Your task to perform on an android device: turn on data saver in the chrome app Image 0: 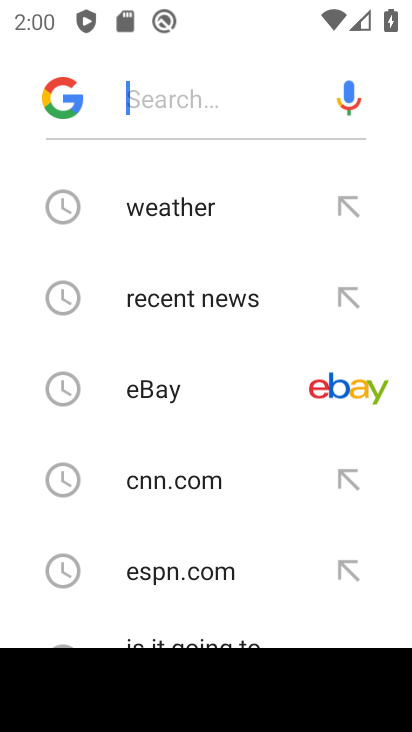
Step 0: press home button
Your task to perform on an android device: turn on data saver in the chrome app Image 1: 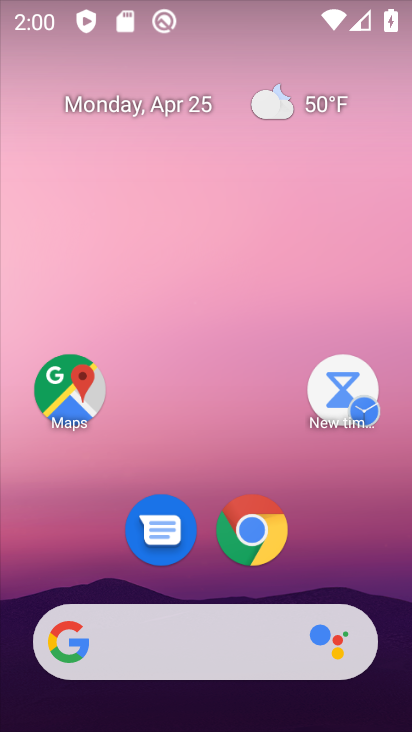
Step 1: drag from (229, 590) to (359, 20)
Your task to perform on an android device: turn on data saver in the chrome app Image 2: 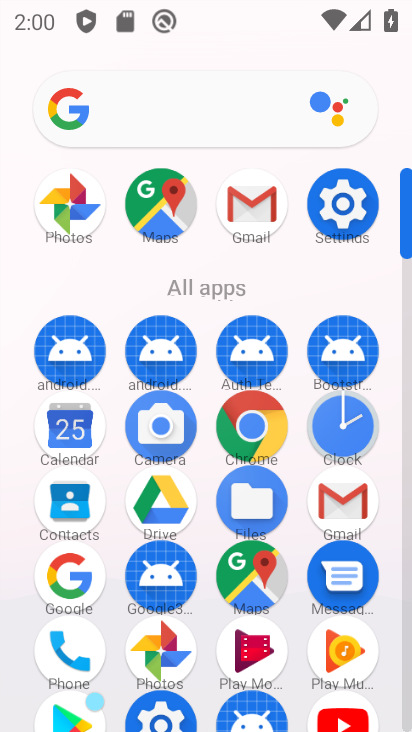
Step 2: click (250, 416)
Your task to perform on an android device: turn on data saver in the chrome app Image 3: 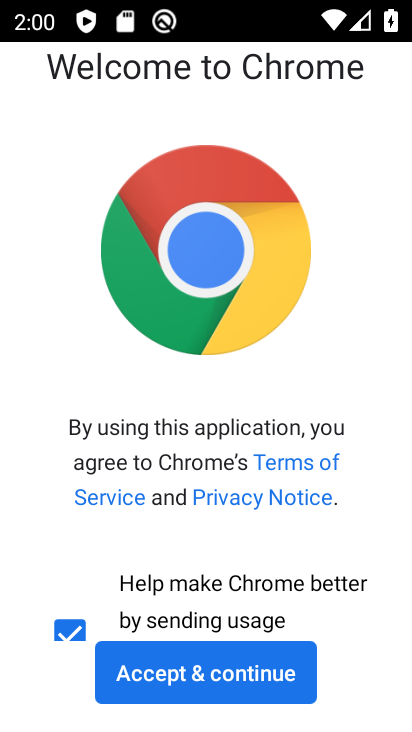
Step 3: click (255, 676)
Your task to perform on an android device: turn on data saver in the chrome app Image 4: 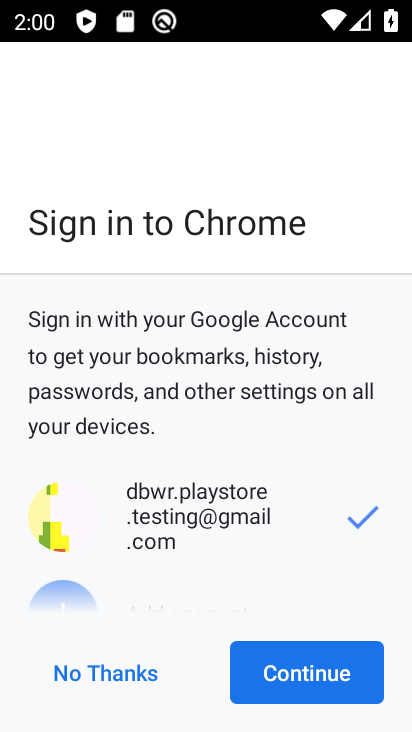
Step 4: click (280, 676)
Your task to perform on an android device: turn on data saver in the chrome app Image 5: 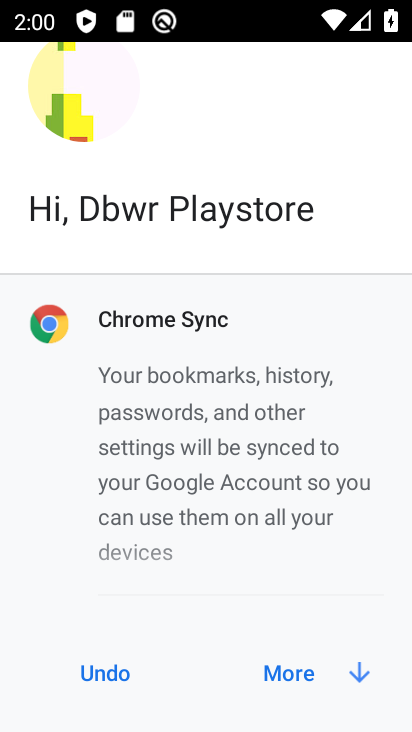
Step 5: click (280, 676)
Your task to perform on an android device: turn on data saver in the chrome app Image 6: 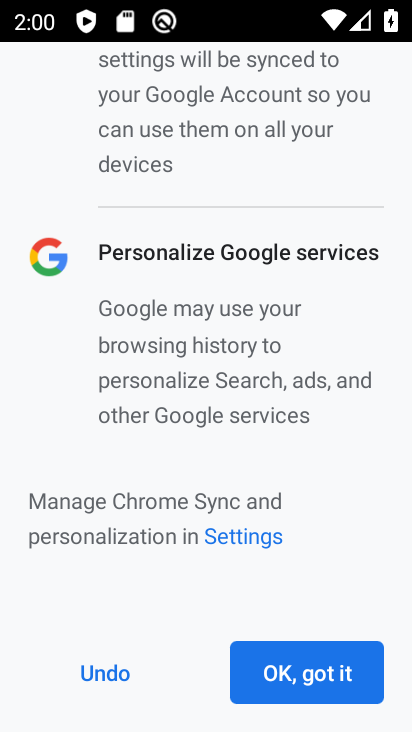
Step 6: click (283, 675)
Your task to perform on an android device: turn on data saver in the chrome app Image 7: 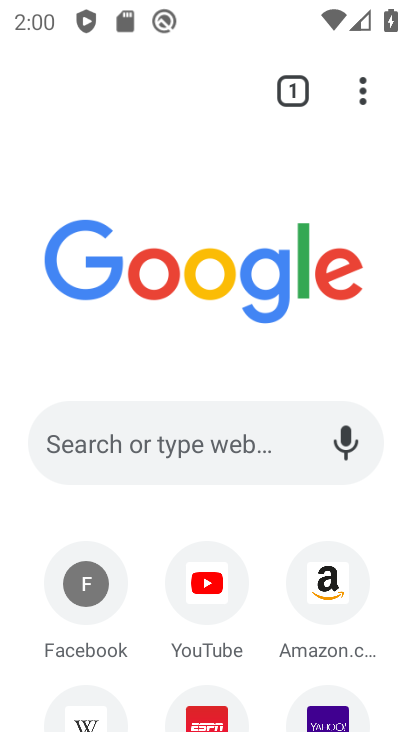
Step 7: drag from (363, 101) to (156, 574)
Your task to perform on an android device: turn on data saver in the chrome app Image 8: 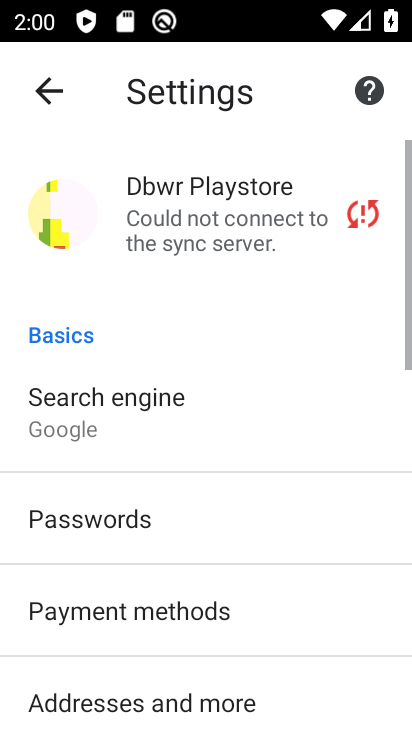
Step 8: drag from (165, 584) to (134, 86)
Your task to perform on an android device: turn on data saver in the chrome app Image 9: 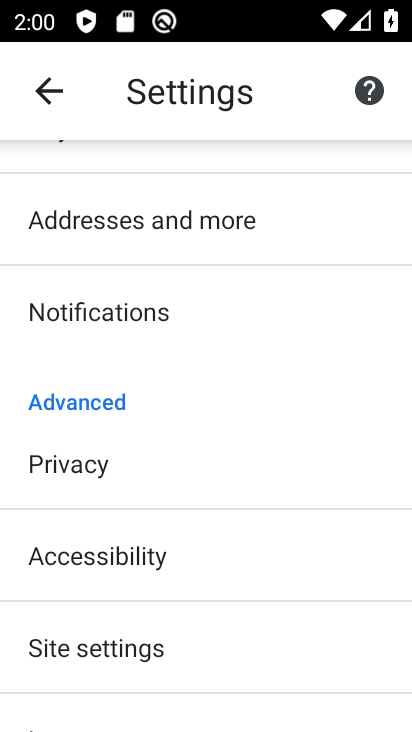
Step 9: drag from (170, 628) to (142, 243)
Your task to perform on an android device: turn on data saver in the chrome app Image 10: 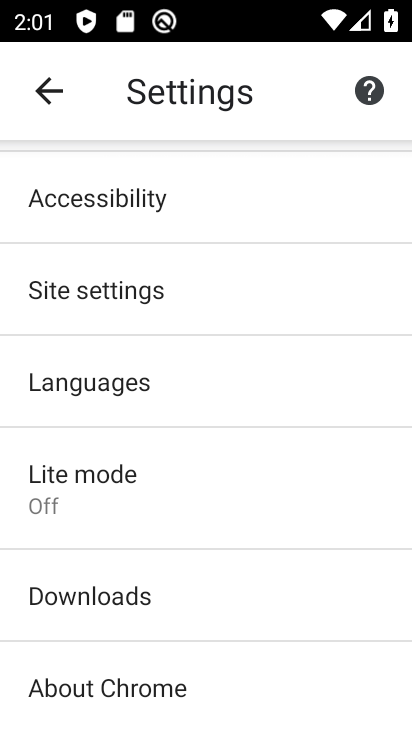
Step 10: click (118, 507)
Your task to perform on an android device: turn on data saver in the chrome app Image 11: 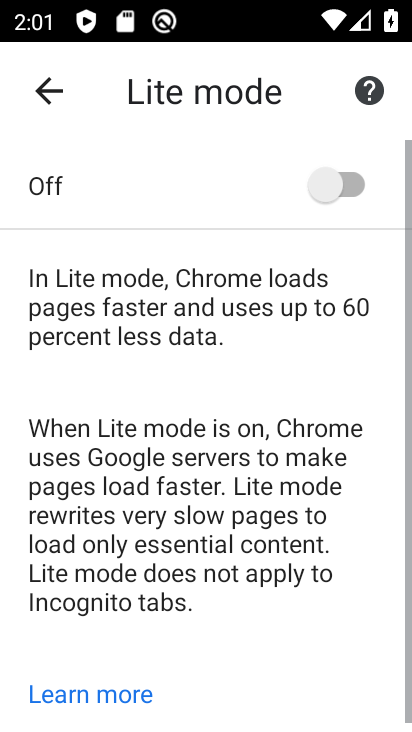
Step 11: click (320, 189)
Your task to perform on an android device: turn on data saver in the chrome app Image 12: 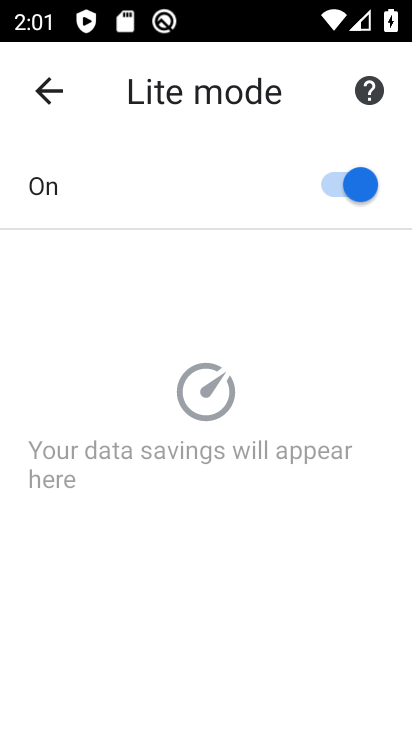
Step 12: task complete